Your task to perform on an android device: Go to Yahoo.com Image 0: 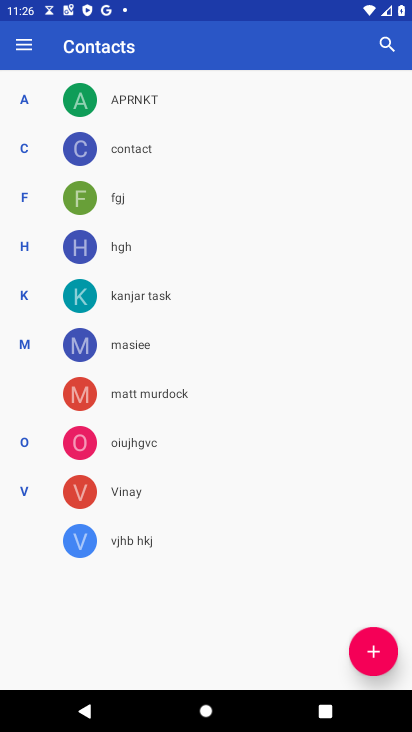
Step 0: press home button
Your task to perform on an android device: Go to Yahoo.com Image 1: 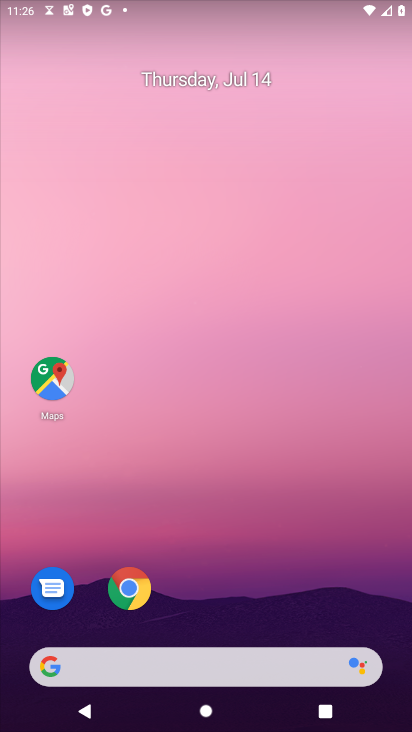
Step 1: click (135, 590)
Your task to perform on an android device: Go to Yahoo.com Image 2: 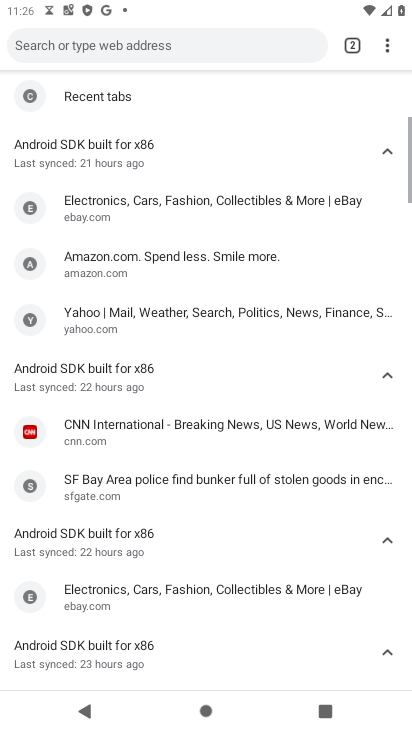
Step 2: drag from (385, 46) to (279, 94)
Your task to perform on an android device: Go to Yahoo.com Image 3: 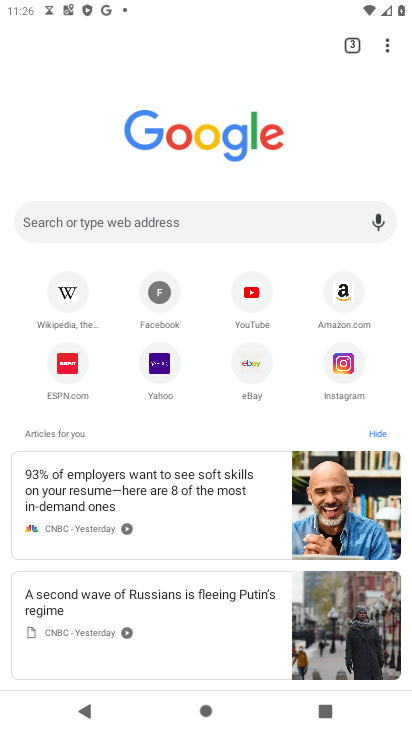
Step 3: click (163, 369)
Your task to perform on an android device: Go to Yahoo.com Image 4: 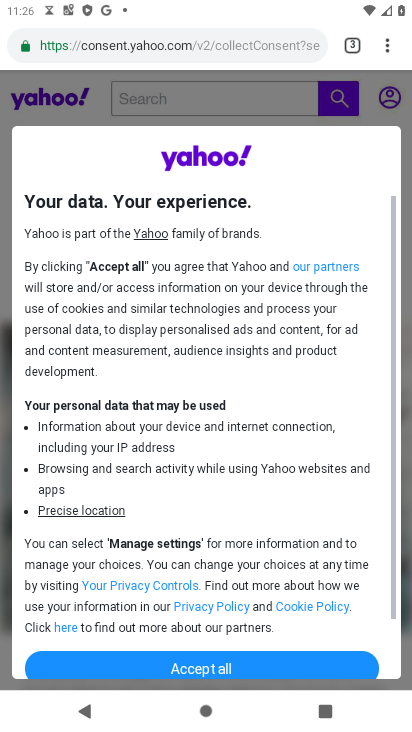
Step 4: click (202, 665)
Your task to perform on an android device: Go to Yahoo.com Image 5: 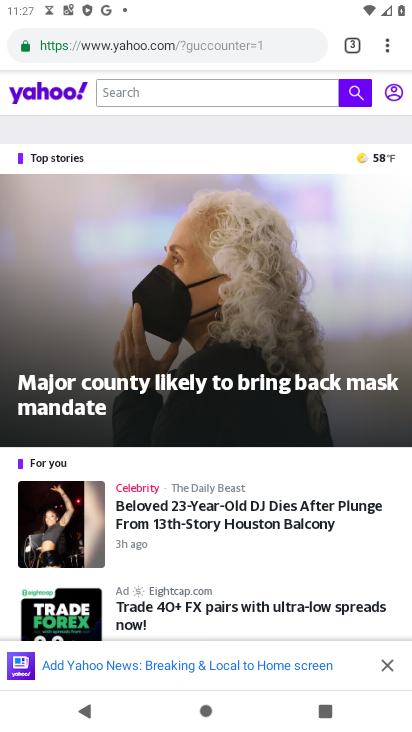
Step 5: task complete